Your task to perform on an android device: star an email in the gmail app Image 0: 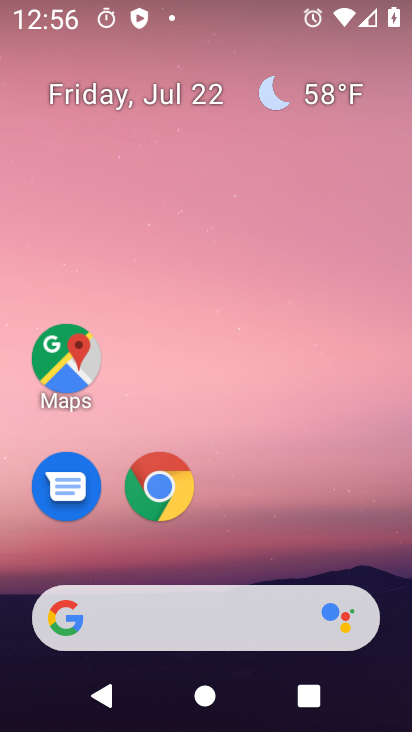
Step 0: drag from (372, 546) to (361, 192)
Your task to perform on an android device: star an email in the gmail app Image 1: 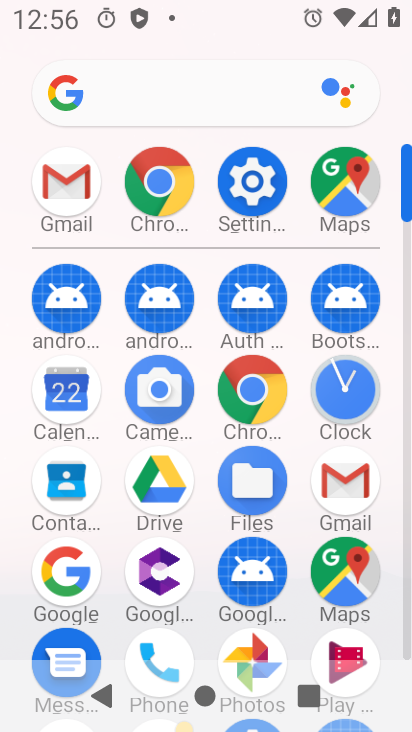
Step 1: click (359, 483)
Your task to perform on an android device: star an email in the gmail app Image 2: 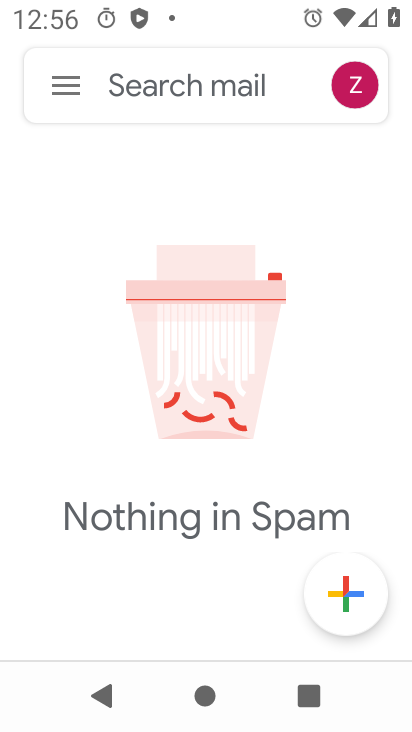
Step 2: click (63, 80)
Your task to perform on an android device: star an email in the gmail app Image 3: 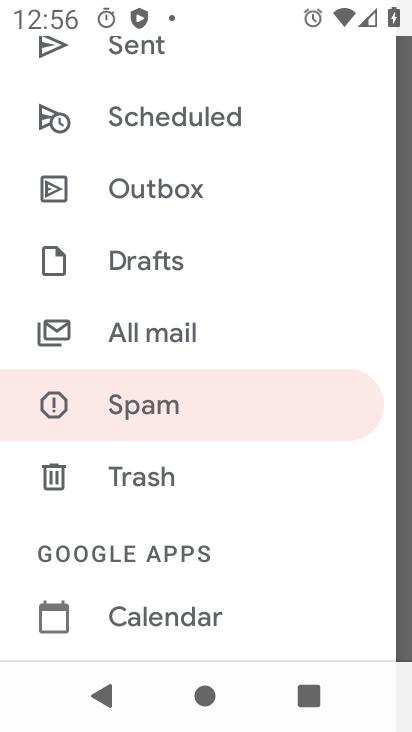
Step 3: drag from (273, 250) to (282, 330)
Your task to perform on an android device: star an email in the gmail app Image 4: 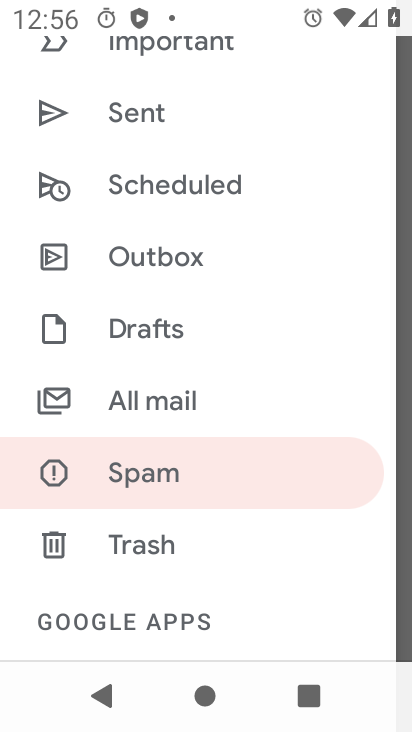
Step 4: drag from (271, 244) to (279, 344)
Your task to perform on an android device: star an email in the gmail app Image 5: 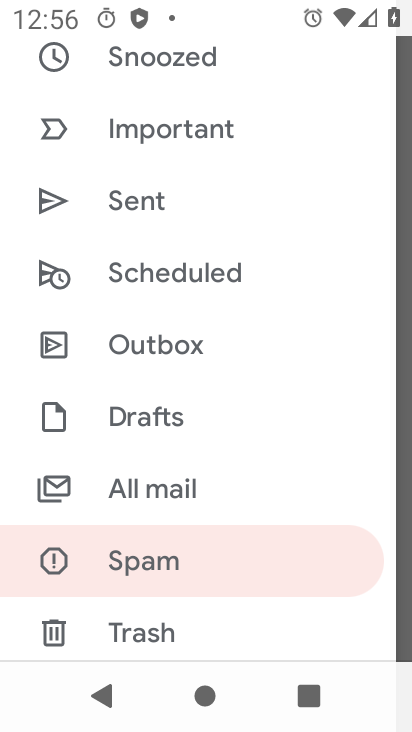
Step 5: drag from (299, 207) to (303, 340)
Your task to perform on an android device: star an email in the gmail app Image 6: 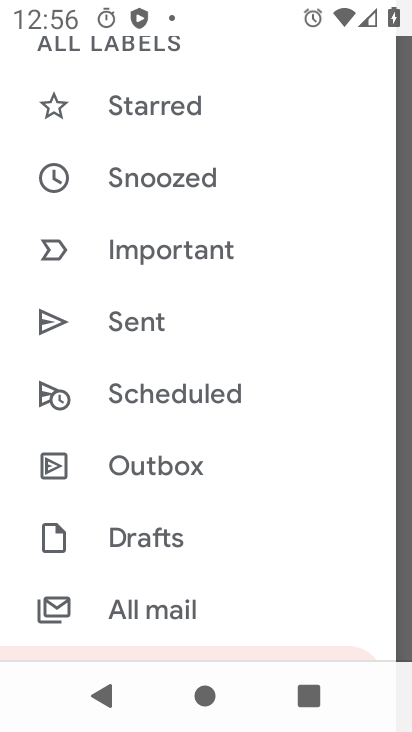
Step 6: drag from (306, 250) to (319, 419)
Your task to perform on an android device: star an email in the gmail app Image 7: 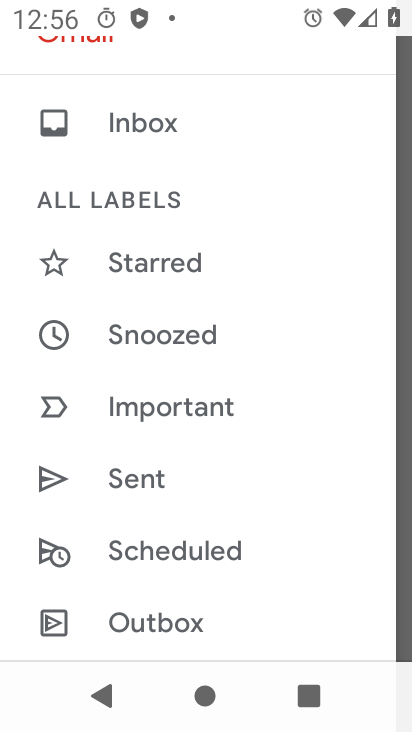
Step 7: drag from (311, 209) to (316, 374)
Your task to perform on an android device: star an email in the gmail app Image 8: 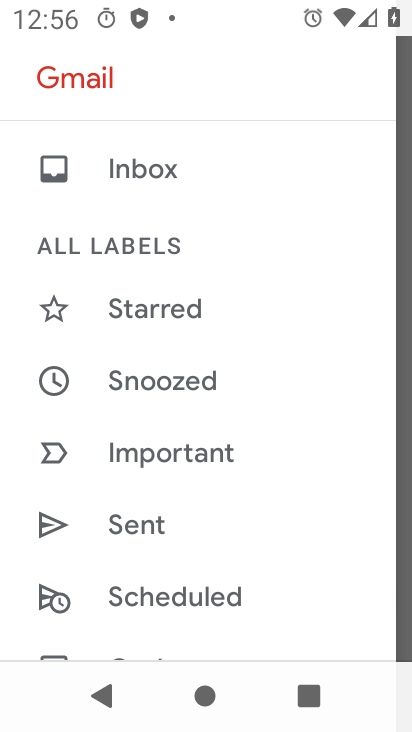
Step 8: click (207, 177)
Your task to perform on an android device: star an email in the gmail app Image 9: 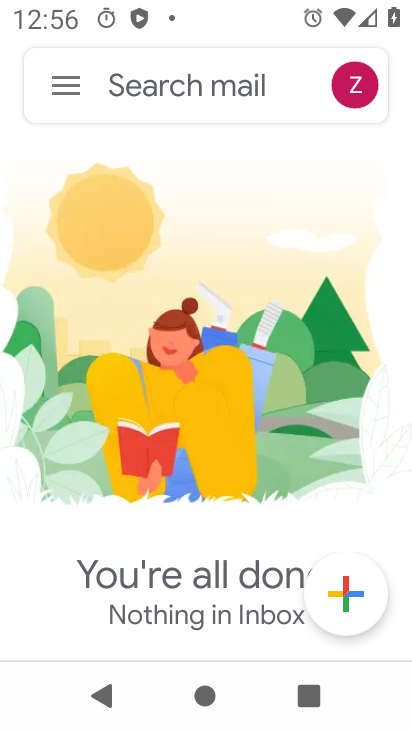
Step 9: task complete